Your task to perform on an android device: change the clock style Image 0: 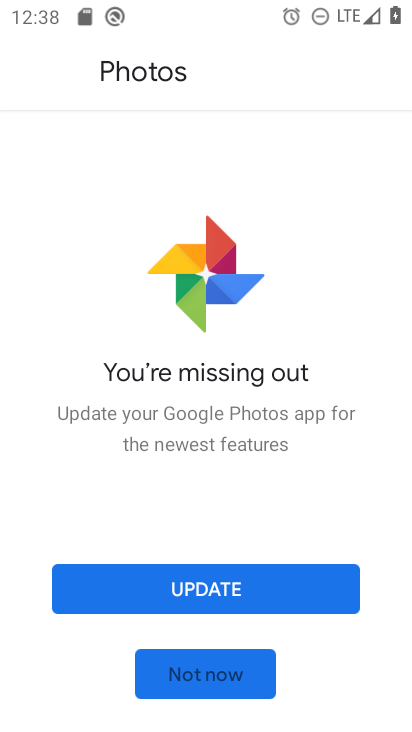
Step 0: press home button
Your task to perform on an android device: change the clock style Image 1: 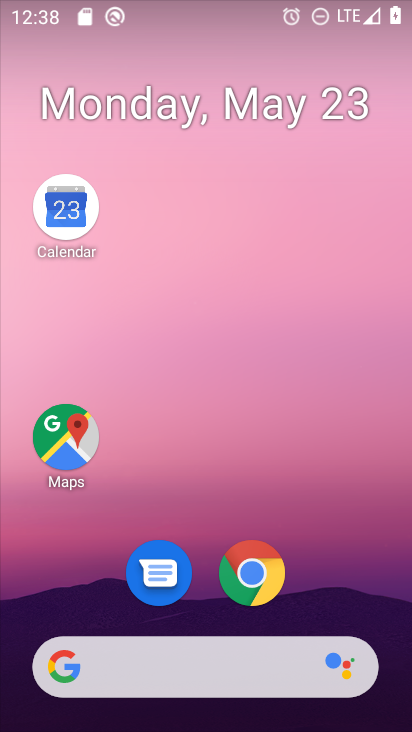
Step 1: drag from (339, 599) to (222, 75)
Your task to perform on an android device: change the clock style Image 2: 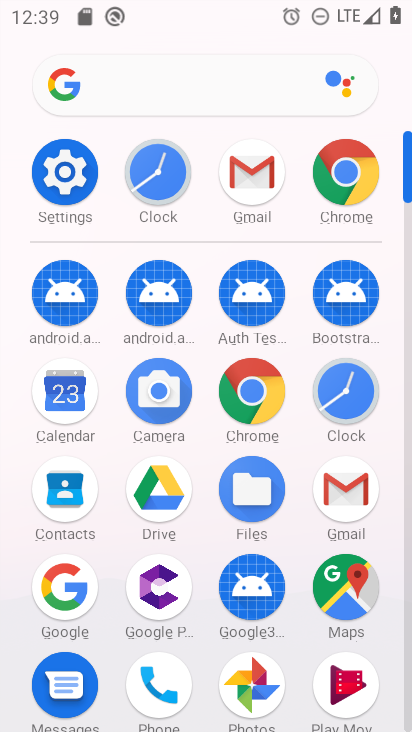
Step 2: click (350, 386)
Your task to perform on an android device: change the clock style Image 3: 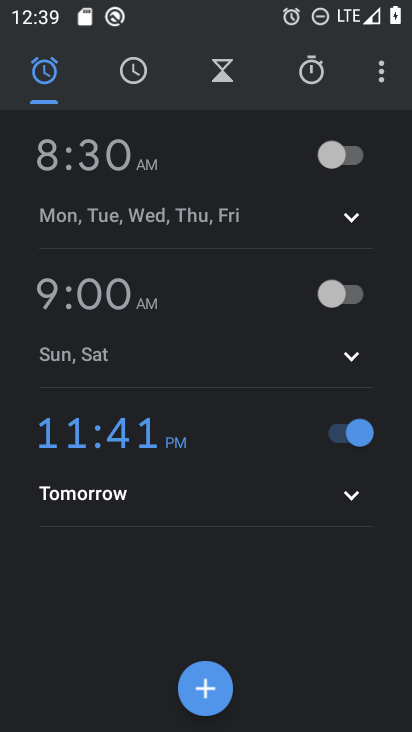
Step 3: click (375, 80)
Your task to perform on an android device: change the clock style Image 4: 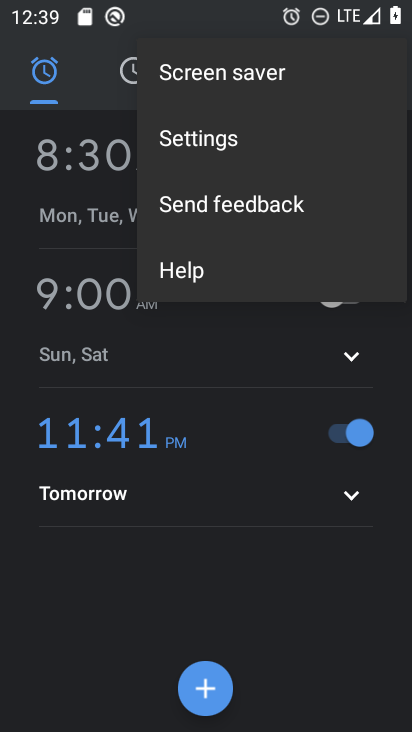
Step 4: click (300, 154)
Your task to perform on an android device: change the clock style Image 5: 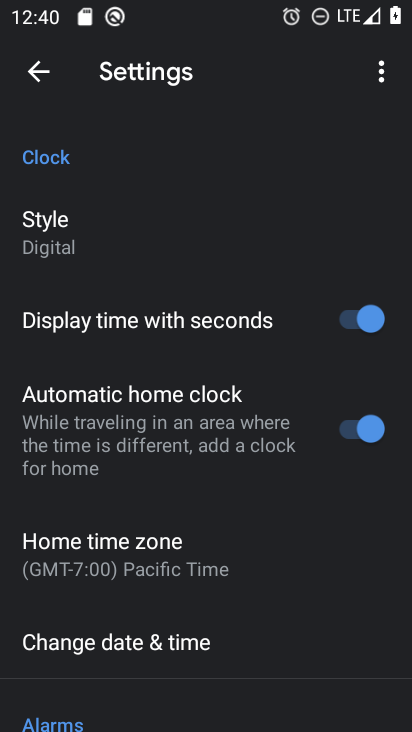
Step 5: click (26, 245)
Your task to perform on an android device: change the clock style Image 6: 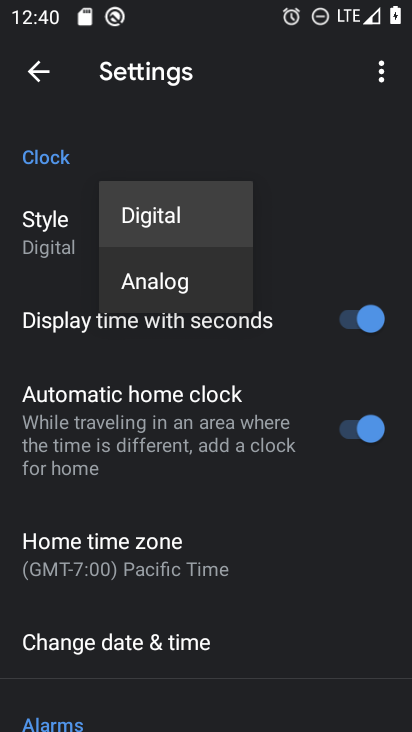
Step 6: click (129, 278)
Your task to perform on an android device: change the clock style Image 7: 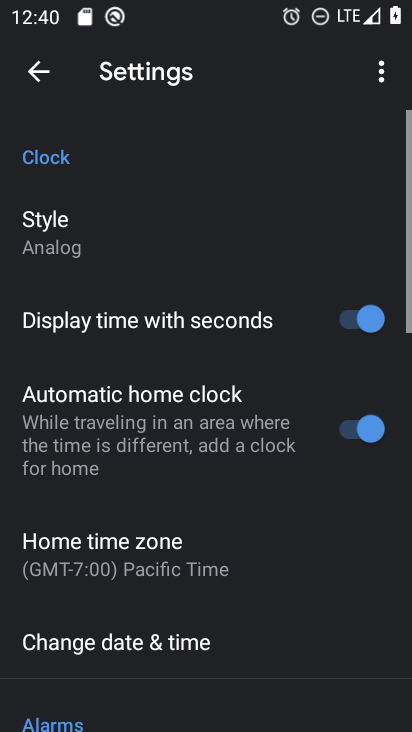
Step 7: task complete